Your task to perform on an android device: turn off picture-in-picture Image 0: 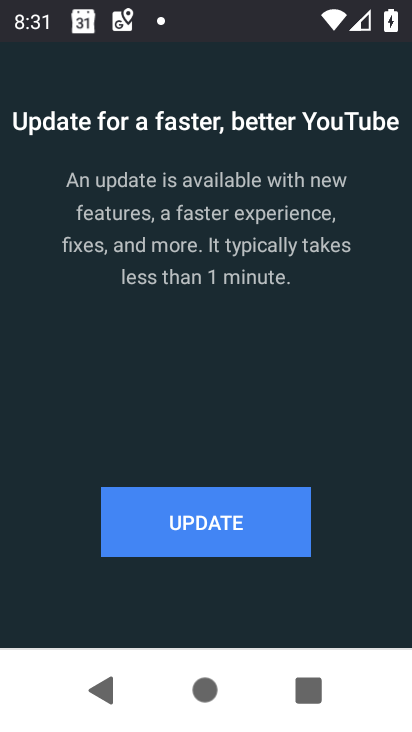
Step 0: press back button
Your task to perform on an android device: turn off picture-in-picture Image 1: 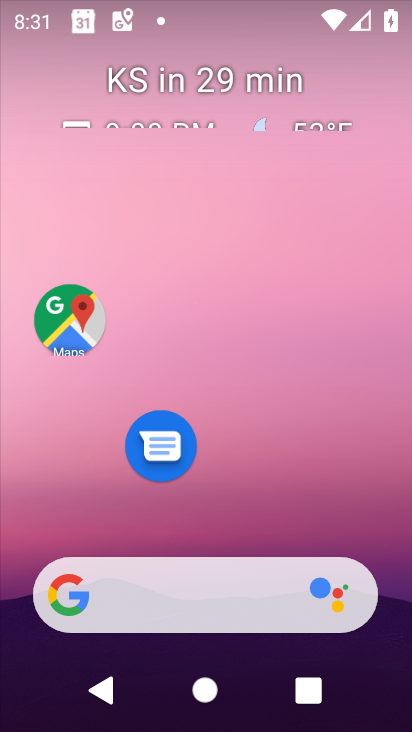
Step 1: drag from (236, 543) to (257, 12)
Your task to perform on an android device: turn off picture-in-picture Image 2: 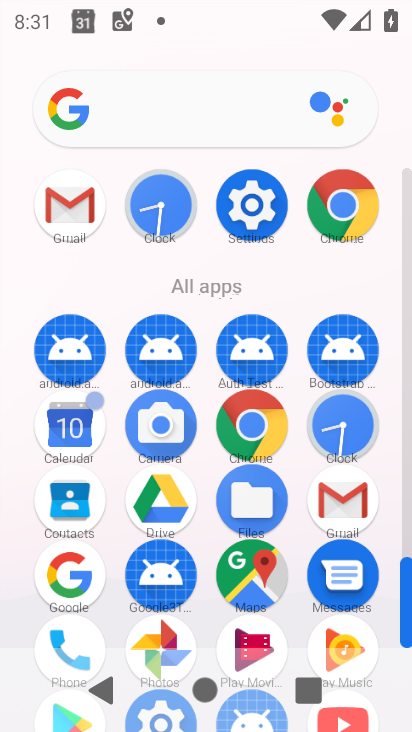
Step 2: click (260, 220)
Your task to perform on an android device: turn off picture-in-picture Image 3: 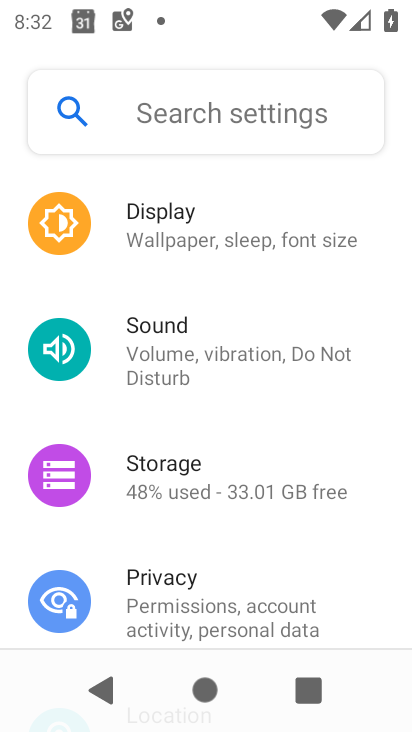
Step 3: drag from (255, 209) to (240, 374)
Your task to perform on an android device: turn off picture-in-picture Image 4: 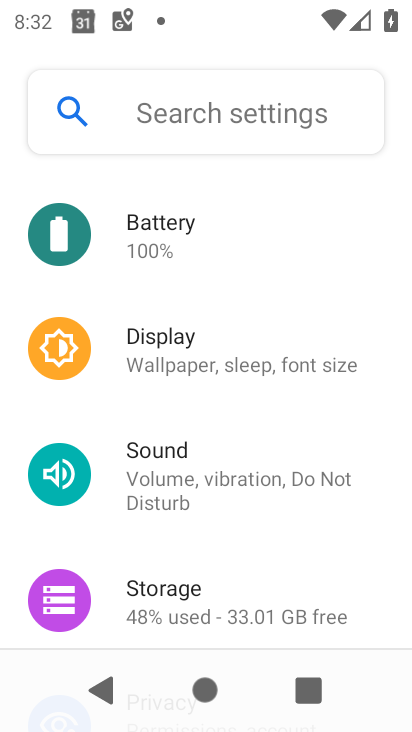
Step 4: drag from (200, 315) to (197, 563)
Your task to perform on an android device: turn off picture-in-picture Image 5: 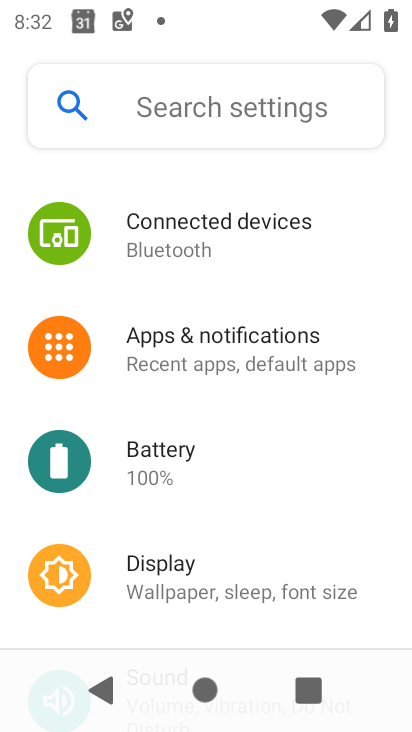
Step 5: click (178, 363)
Your task to perform on an android device: turn off picture-in-picture Image 6: 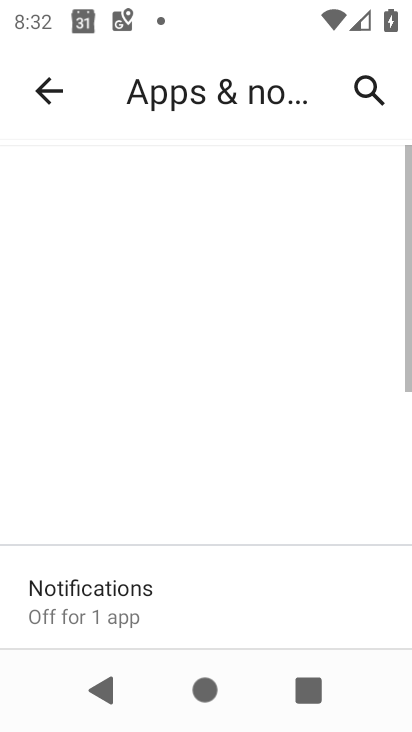
Step 6: drag from (196, 503) to (191, 12)
Your task to perform on an android device: turn off picture-in-picture Image 7: 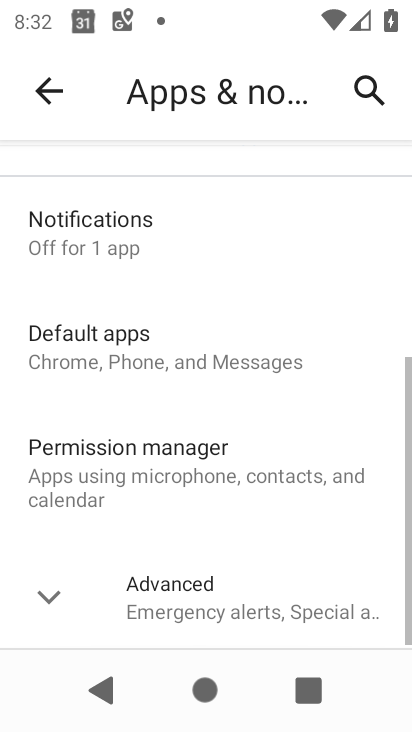
Step 7: click (132, 610)
Your task to perform on an android device: turn off picture-in-picture Image 8: 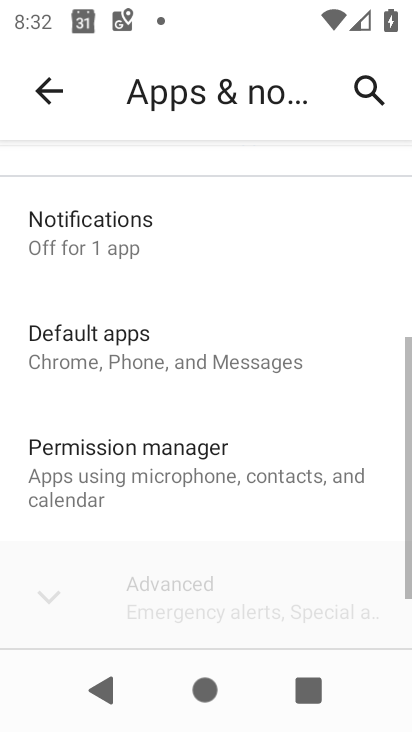
Step 8: drag from (136, 602) to (130, 62)
Your task to perform on an android device: turn off picture-in-picture Image 9: 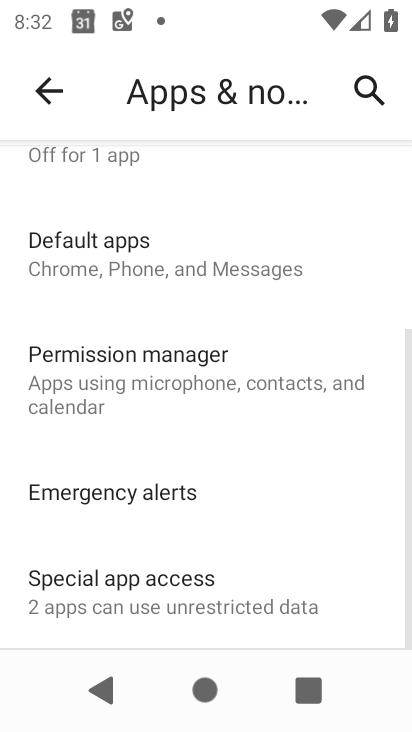
Step 9: click (122, 591)
Your task to perform on an android device: turn off picture-in-picture Image 10: 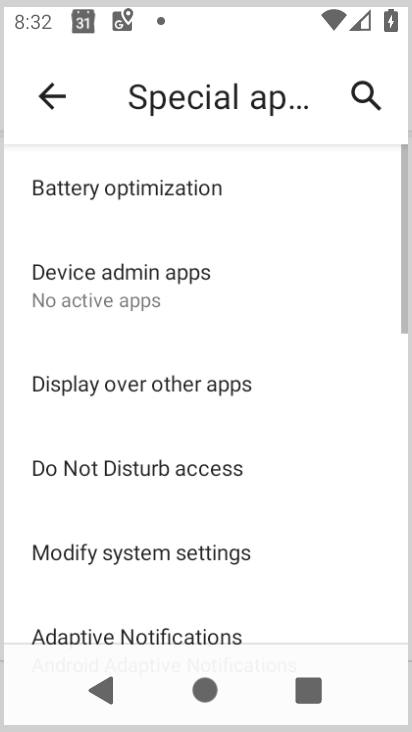
Step 10: task complete